Your task to perform on an android device: What's the weather? Image 0: 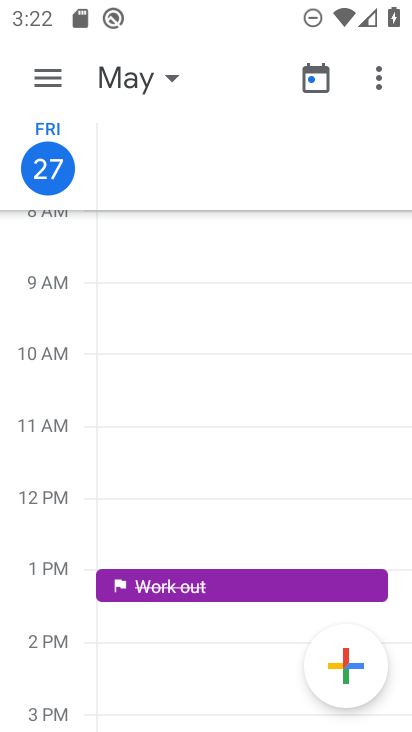
Step 0: press home button
Your task to perform on an android device: What's the weather? Image 1: 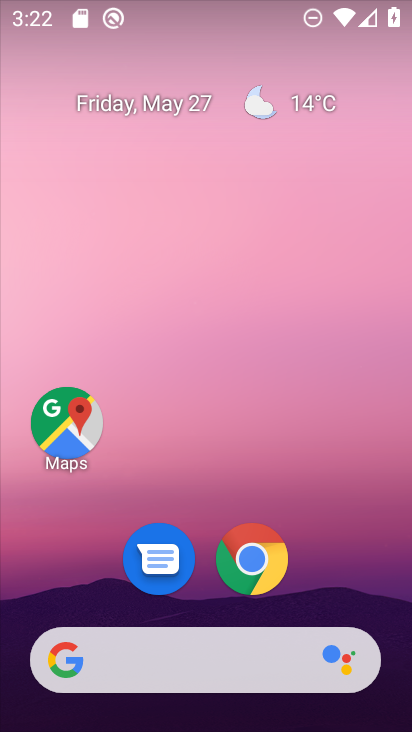
Step 1: drag from (352, 587) to (293, 51)
Your task to perform on an android device: What's the weather? Image 2: 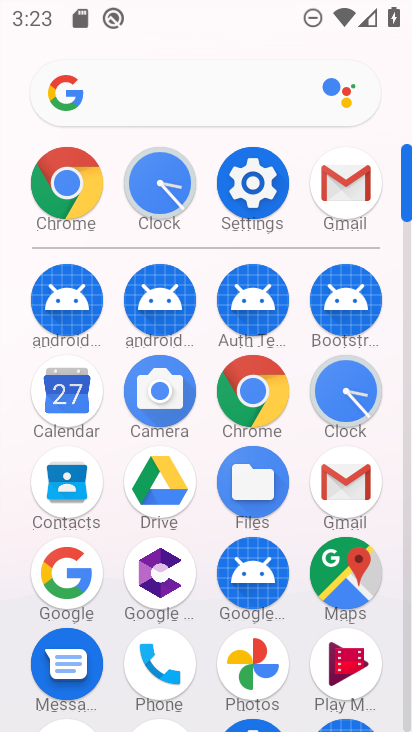
Step 2: click (46, 191)
Your task to perform on an android device: What's the weather? Image 3: 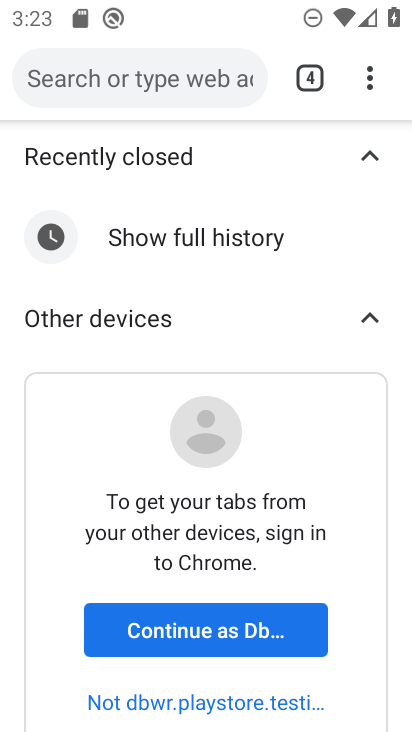
Step 3: click (213, 73)
Your task to perform on an android device: What's the weather? Image 4: 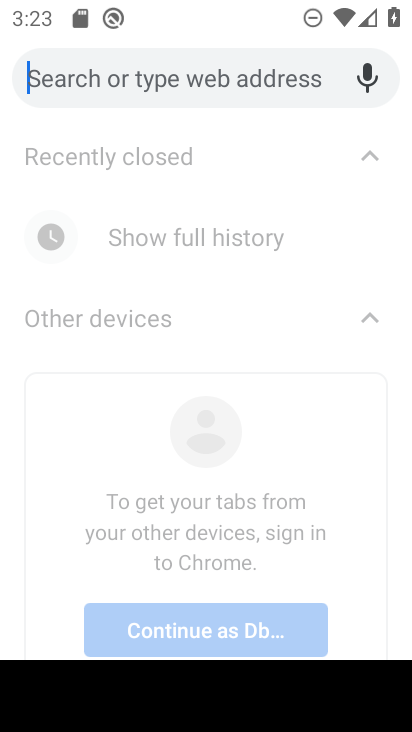
Step 4: type "whhats the weather"
Your task to perform on an android device: What's the weather? Image 5: 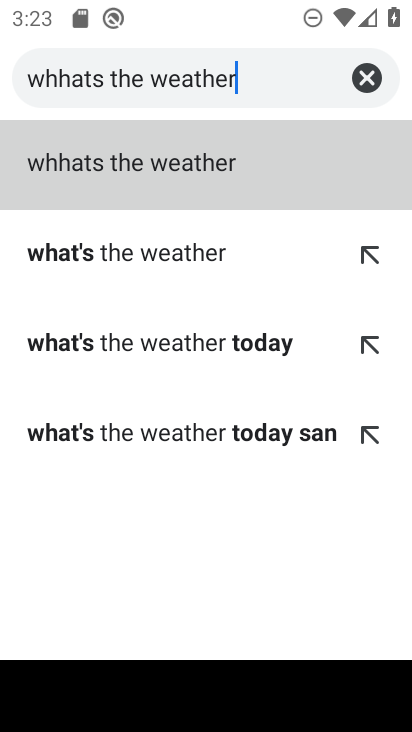
Step 5: click (291, 190)
Your task to perform on an android device: What's the weather? Image 6: 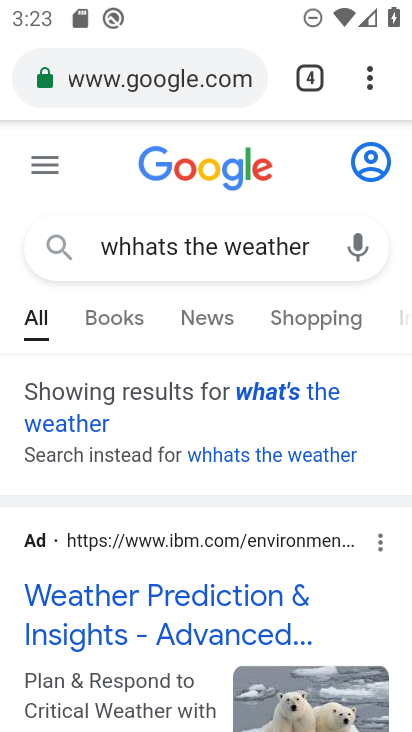
Step 6: click (232, 591)
Your task to perform on an android device: What's the weather? Image 7: 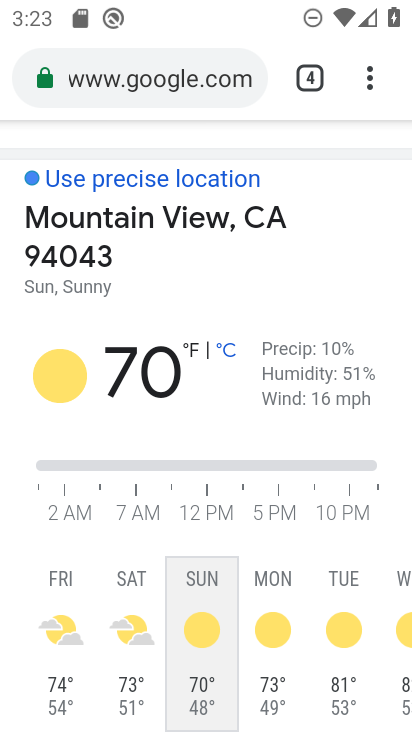
Step 7: task complete